Your task to perform on an android device: turn off priority inbox in the gmail app Image 0: 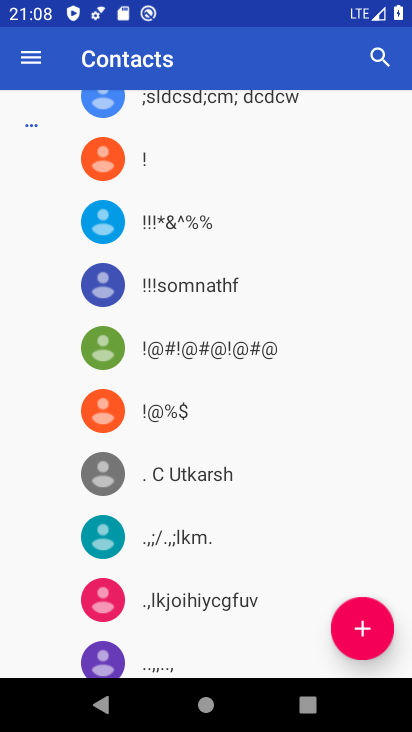
Step 0: press home button
Your task to perform on an android device: turn off priority inbox in the gmail app Image 1: 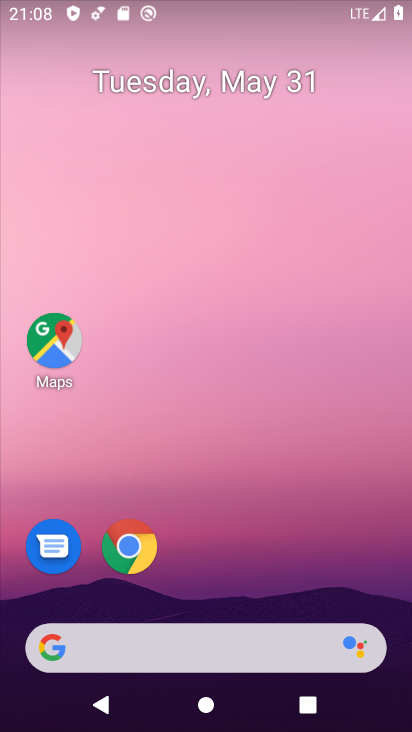
Step 1: drag from (394, 698) to (378, 188)
Your task to perform on an android device: turn off priority inbox in the gmail app Image 2: 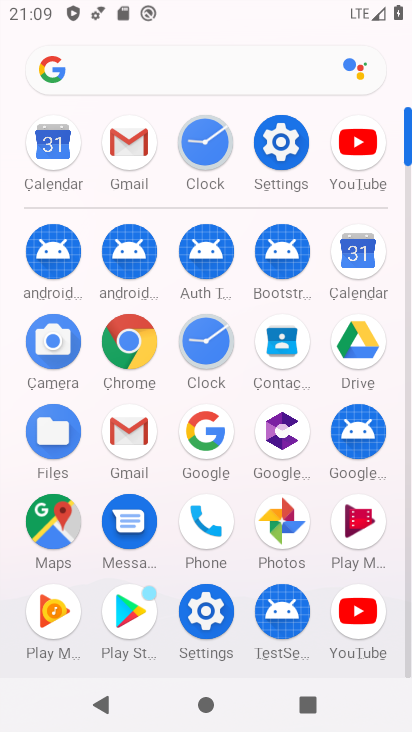
Step 2: click (392, 102)
Your task to perform on an android device: turn off priority inbox in the gmail app Image 3: 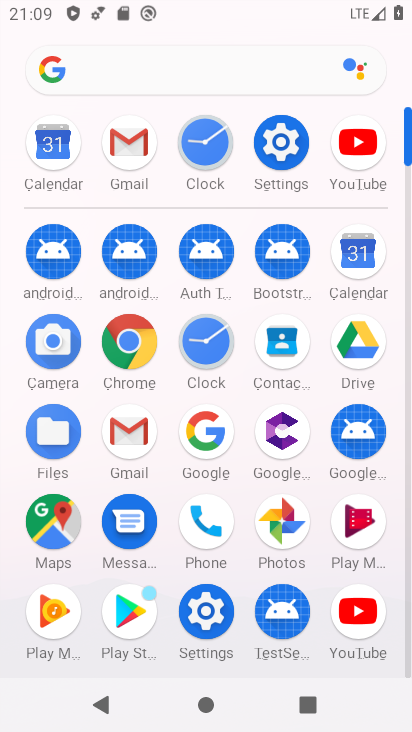
Step 3: click (131, 155)
Your task to perform on an android device: turn off priority inbox in the gmail app Image 4: 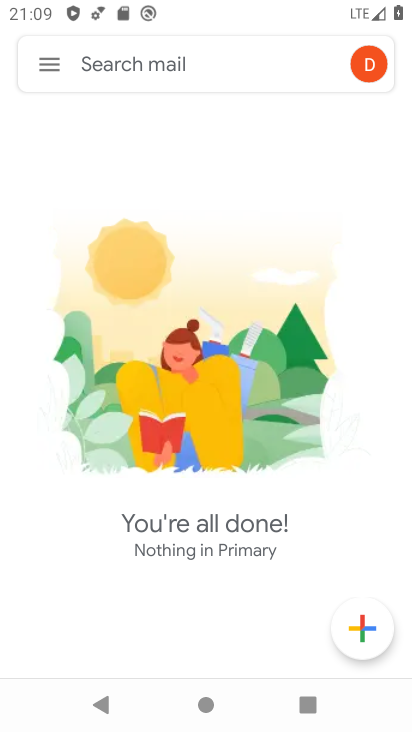
Step 4: click (41, 57)
Your task to perform on an android device: turn off priority inbox in the gmail app Image 5: 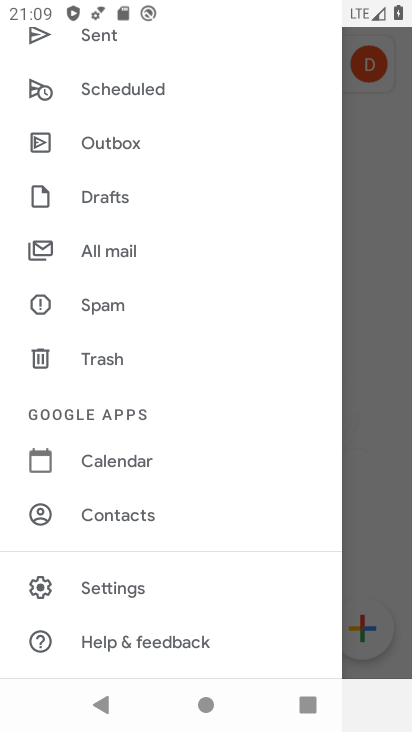
Step 5: click (127, 590)
Your task to perform on an android device: turn off priority inbox in the gmail app Image 6: 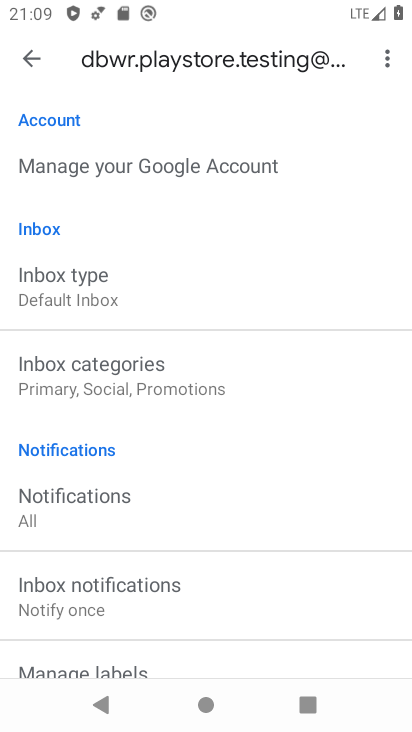
Step 6: click (58, 299)
Your task to perform on an android device: turn off priority inbox in the gmail app Image 7: 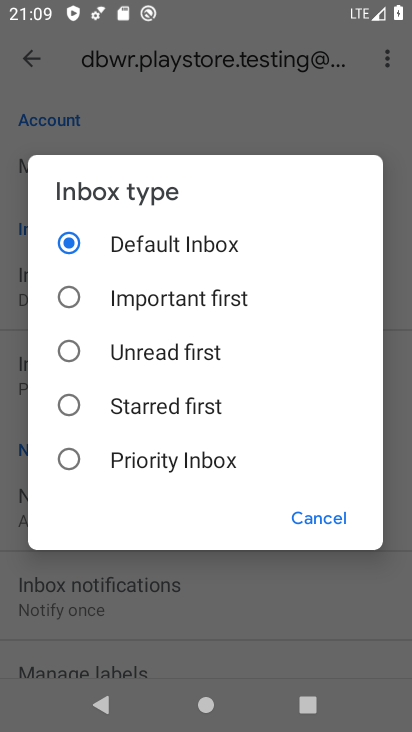
Step 7: task complete